Your task to perform on an android device: Open sound settings Image 0: 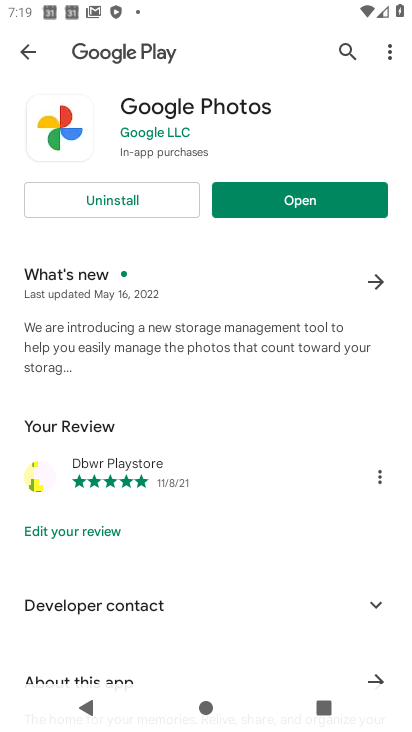
Step 0: press home button
Your task to perform on an android device: Open sound settings Image 1: 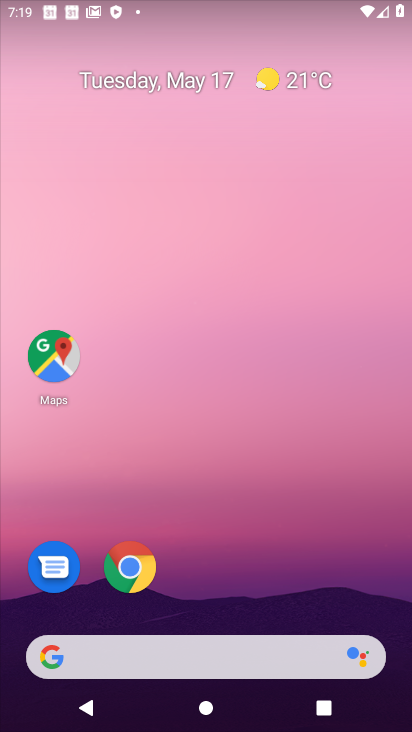
Step 1: drag from (213, 541) to (130, 179)
Your task to perform on an android device: Open sound settings Image 2: 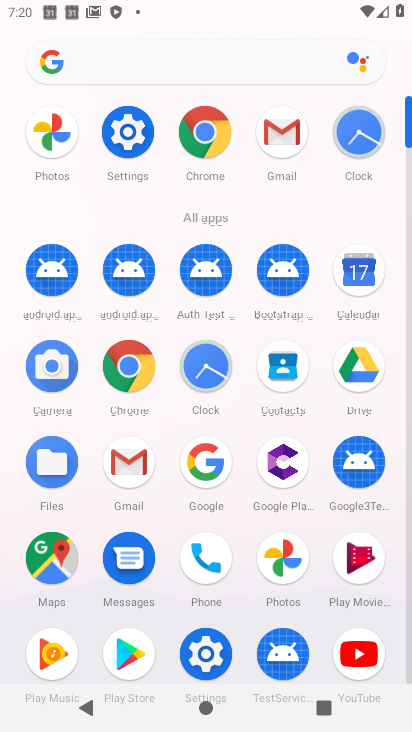
Step 2: click (127, 133)
Your task to perform on an android device: Open sound settings Image 3: 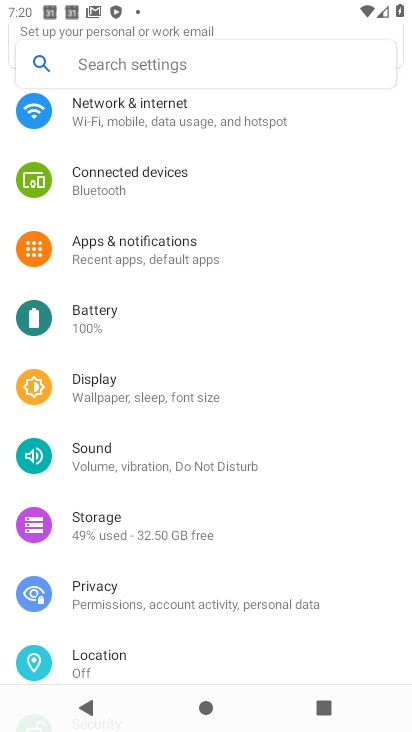
Step 3: click (92, 446)
Your task to perform on an android device: Open sound settings Image 4: 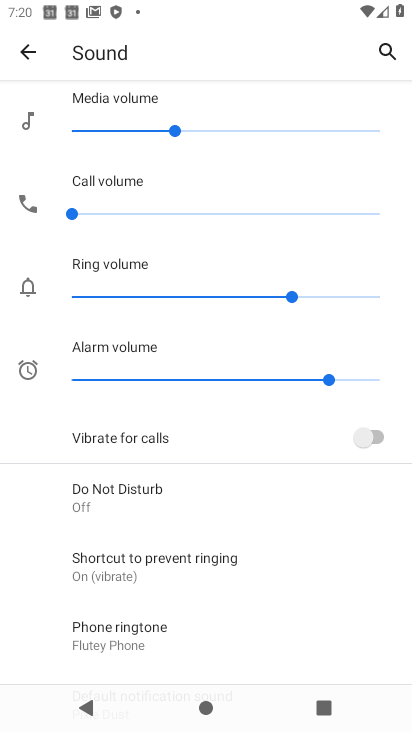
Step 4: task complete